Your task to perform on an android device: Open settings on Google Maps Image 0: 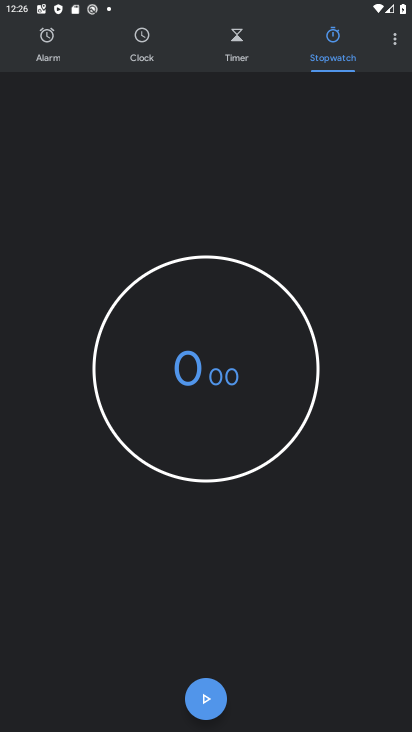
Step 0: press home button
Your task to perform on an android device: Open settings on Google Maps Image 1: 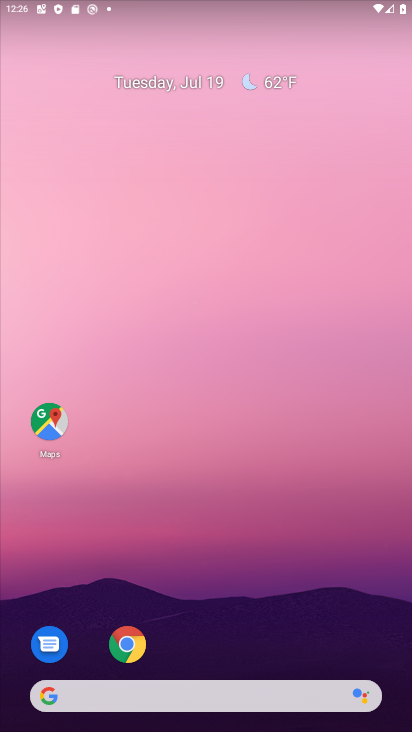
Step 1: drag from (235, 594) to (210, 192)
Your task to perform on an android device: Open settings on Google Maps Image 2: 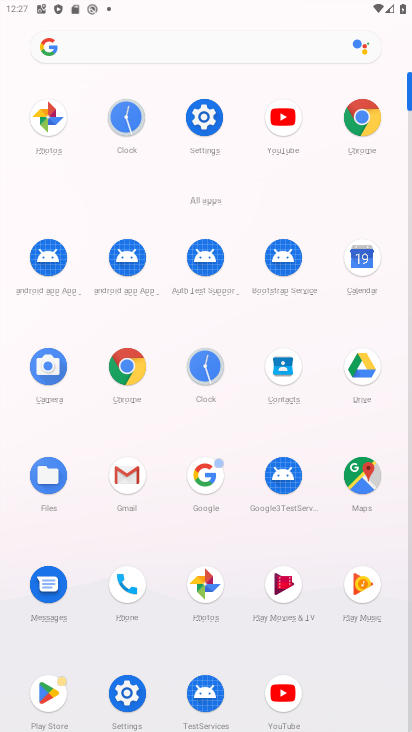
Step 2: click (365, 474)
Your task to perform on an android device: Open settings on Google Maps Image 3: 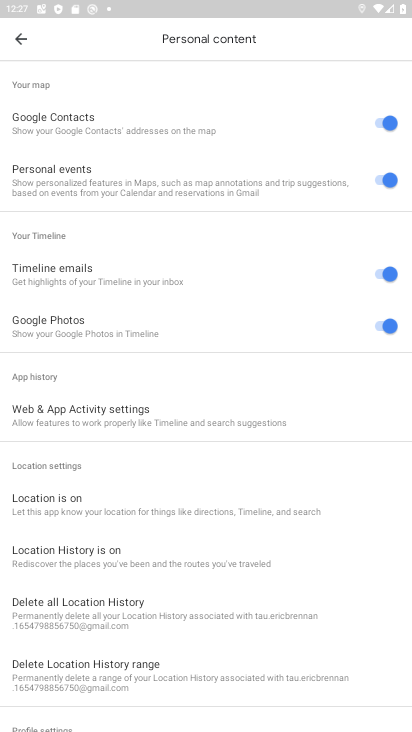
Step 3: click (17, 38)
Your task to perform on an android device: Open settings on Google Maps Image 4: 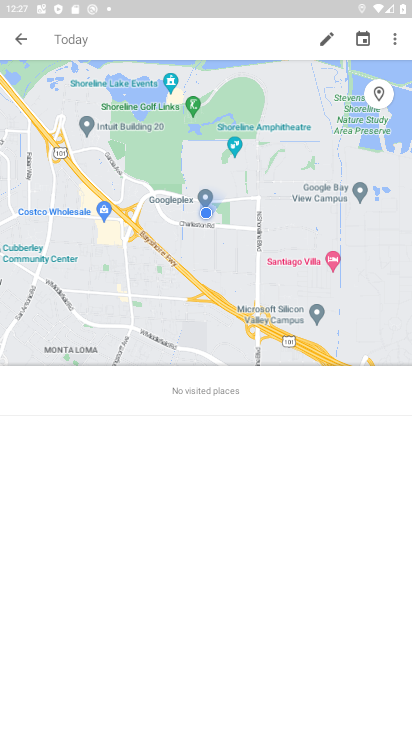
Step 4: click (15, 29)
Your task to perform on an android device: Open settings on Google Maps Image 5: 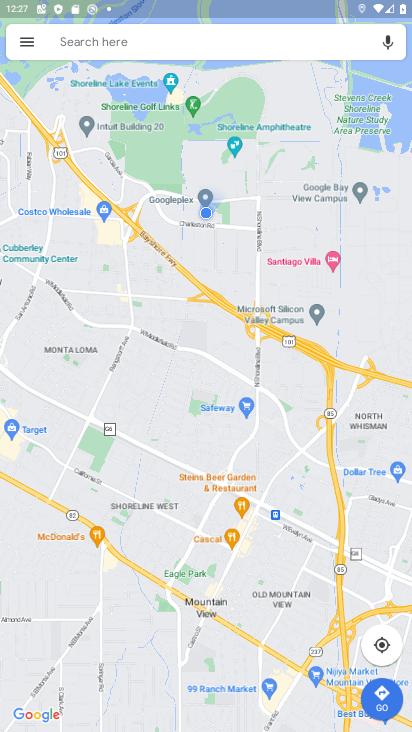
Step 5: click (23, 34)
Your task to perform on an android device: Open settings on Google Maps Image 6: 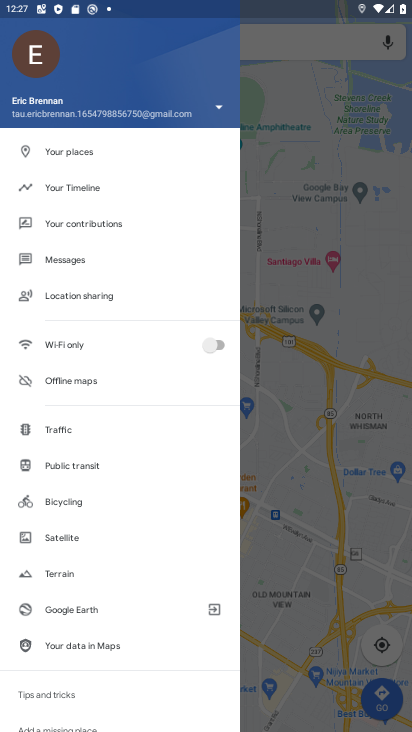
Step 6: drag from (130, 668) to (122, 344)
Your task to perform on an android device: Open settings on Google Maps Image 7: 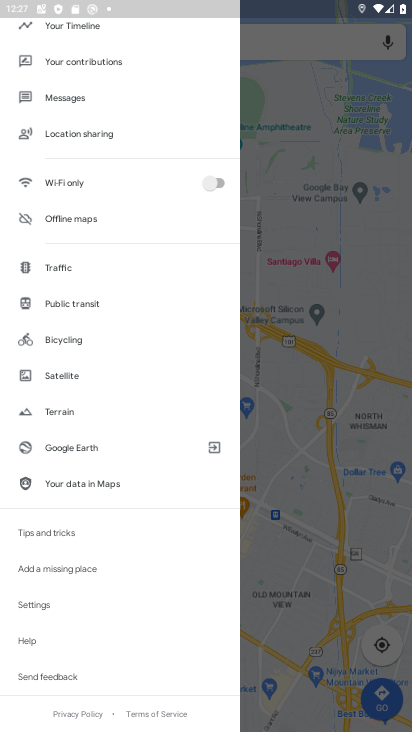
Step 7: click (33, 596)
Your task to perform on an android device: Open settings on Google Maps Image 8: 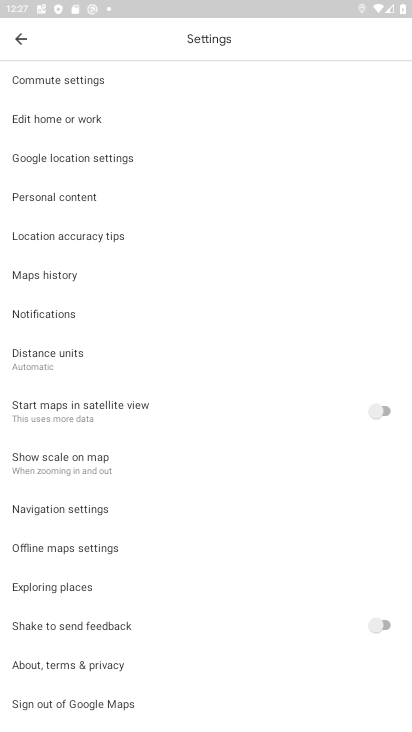
Step 8: task complete